Your task to perform on an android device: install app "Reddit" Image 0: 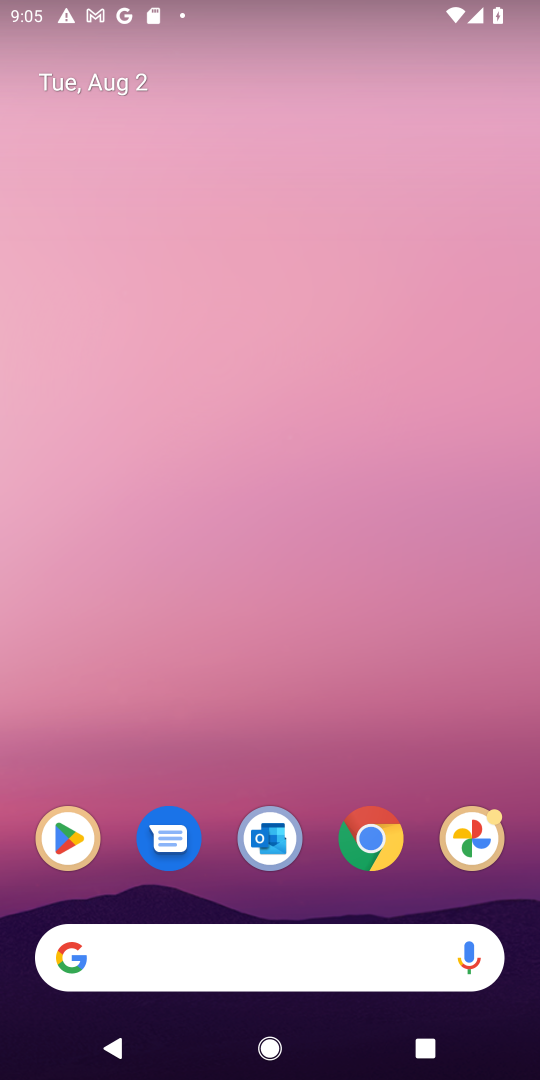
Step 0: drag from (327, 768) to (327, 82)
Your task to perform on an android device: install app "Reddit" Image 1: 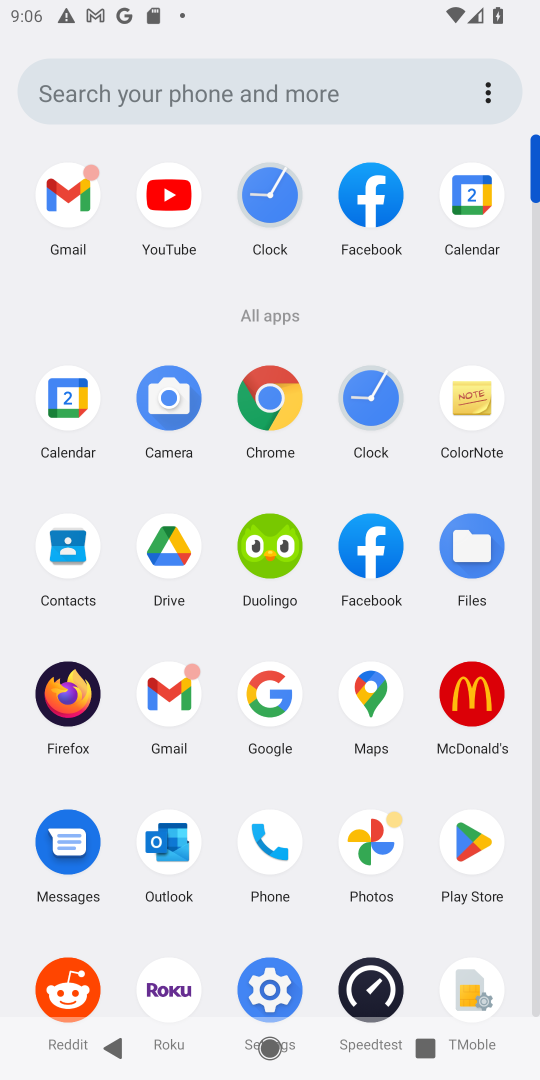
Step 1: click (488, 856)
Your task to perform on an android device: install app "Reddit" Image 2: 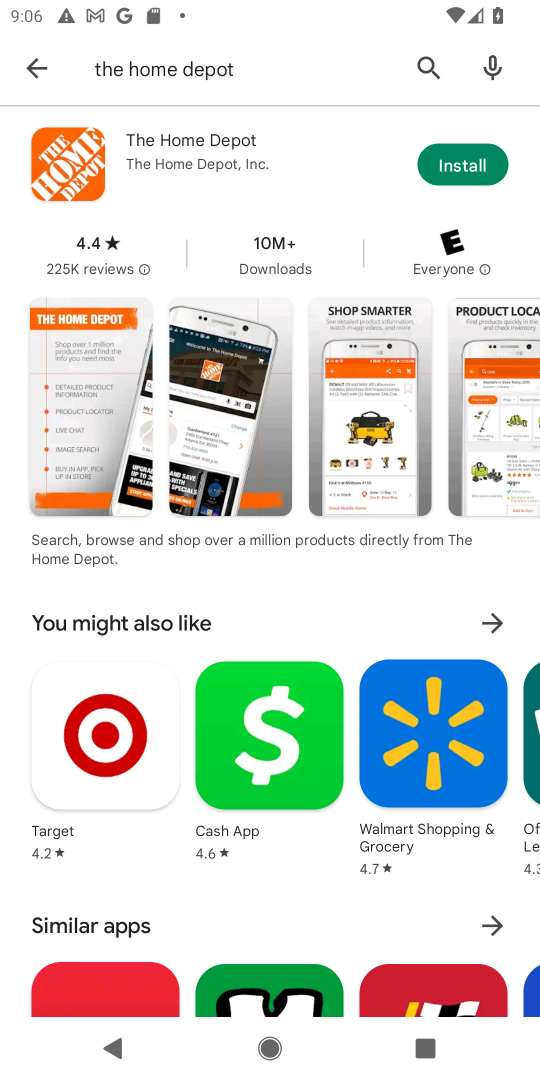
Step 2: click (422, 70)
Your task to perform on an android device: install app "Reddit" Image 3: 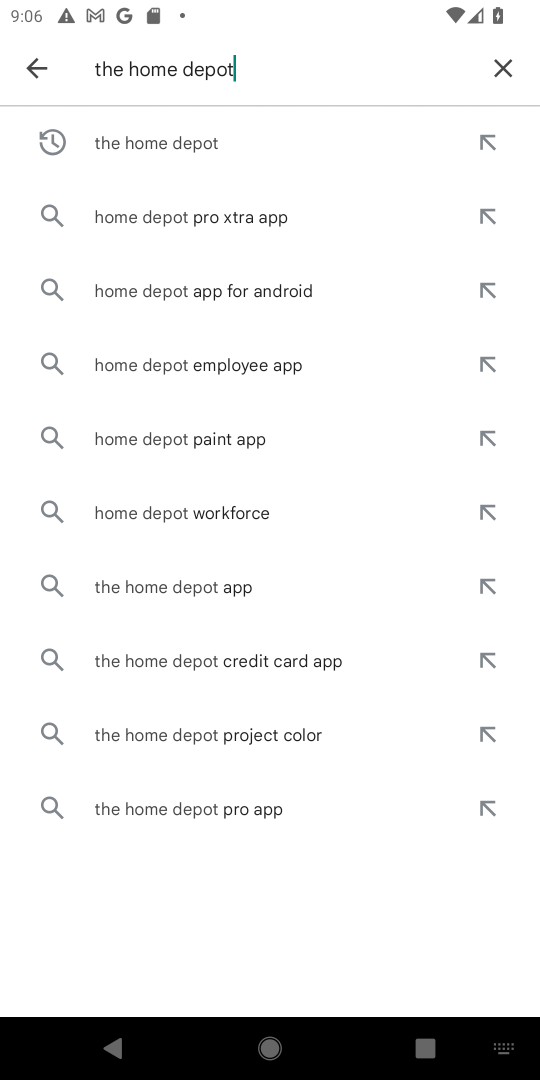
Step 3: click (503, 59)
Your task to perform on an android device: install app "Reddit" Image 4: 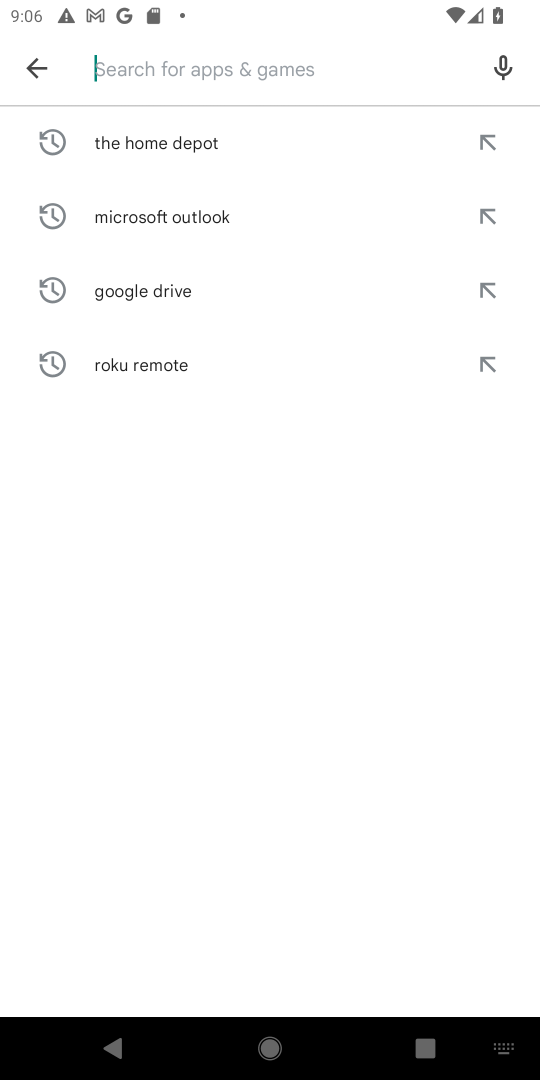
Step 4: click (326, 86)
Your task to perform on an android device: install app "Reddit" Image 5: 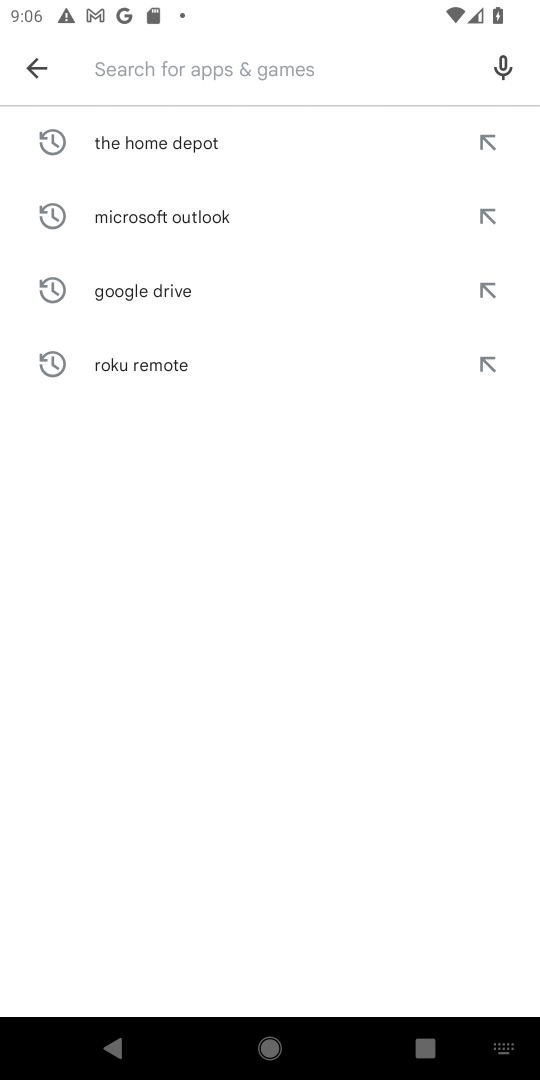
Step 5: type "reddit"
Your task to perform on an android device: install app "Reddit" Image 6: 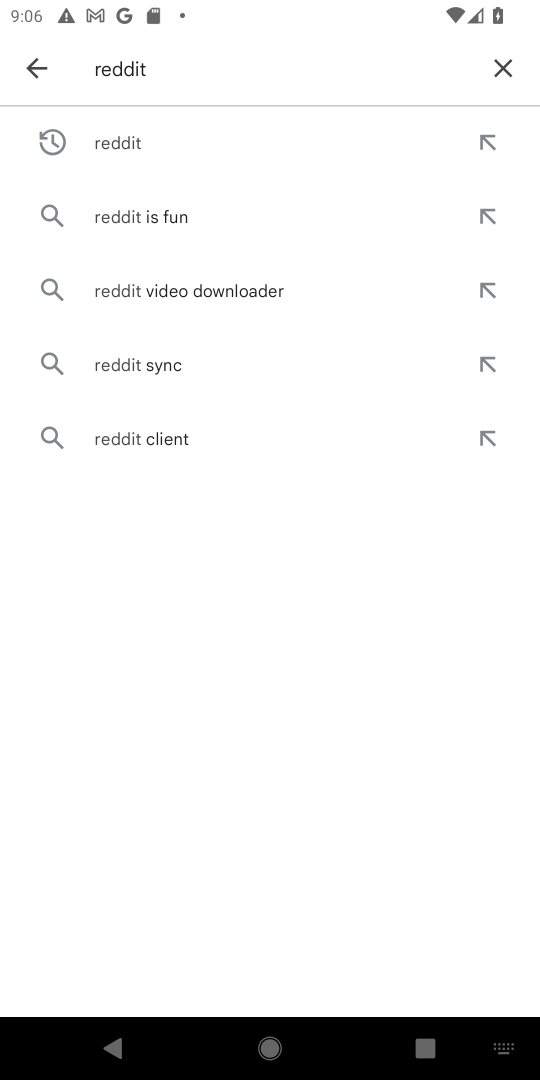
Step 6: click (227, 155)
Your task to perform on an android device: install app "Reddit" Image 7: 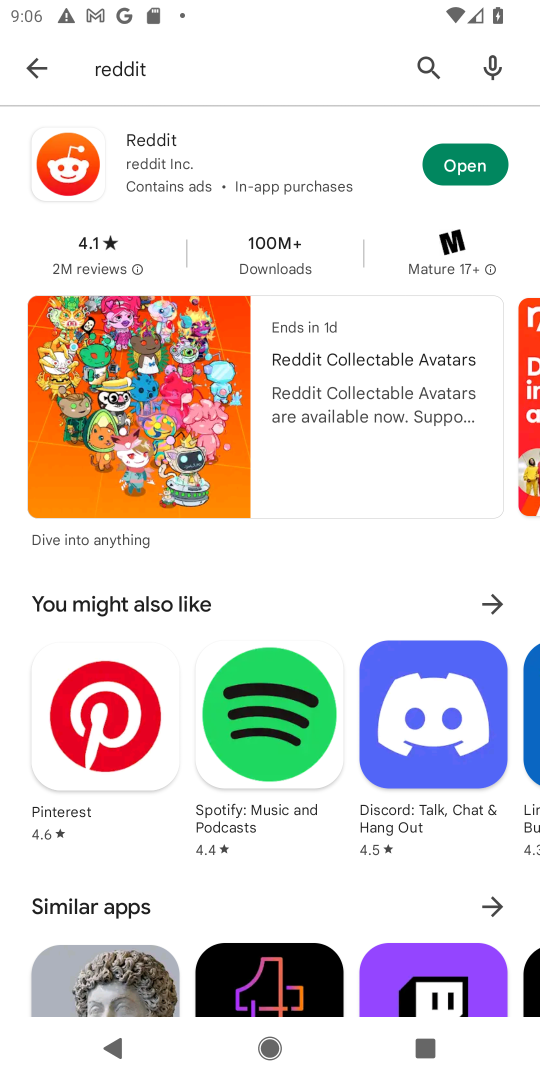
Step 7: task complete